Your task to perform on an android device: Do I have any events today? Image 0: 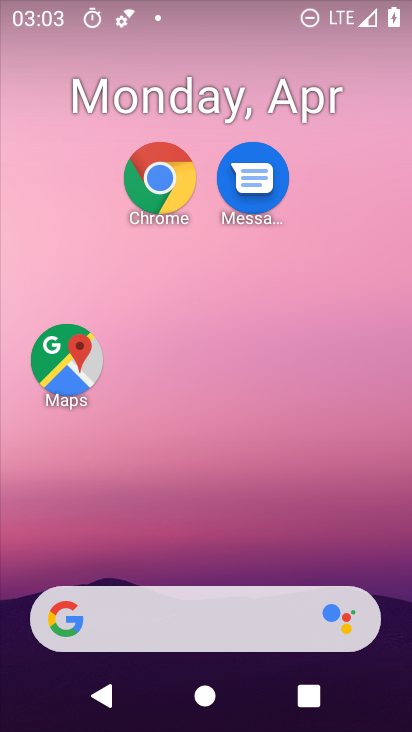
Step 0: drag from (249, 573) to (229, 27)
Your task to perform on an android device: Do I have any events today? Image 1: 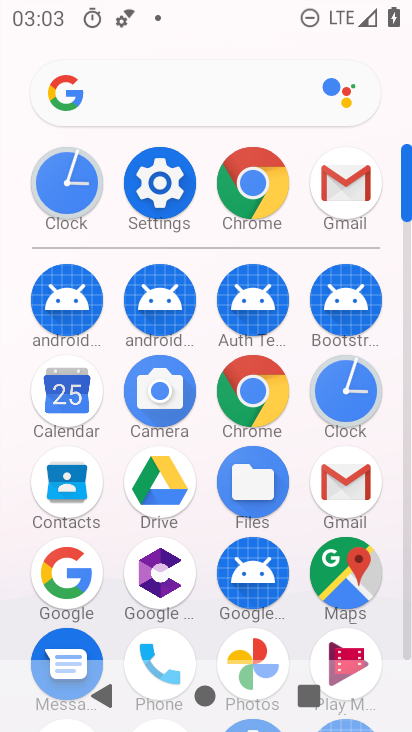
Step 1: click (70, 410)
Your task to perform on an android device: Do I have any events today? Image 2: 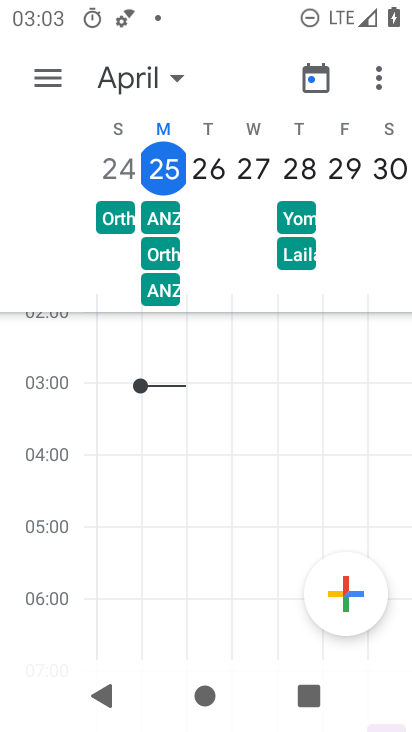
Step 2: click (172, 163)
Your task to perform on an android device: Do I have any events today? Image 3: 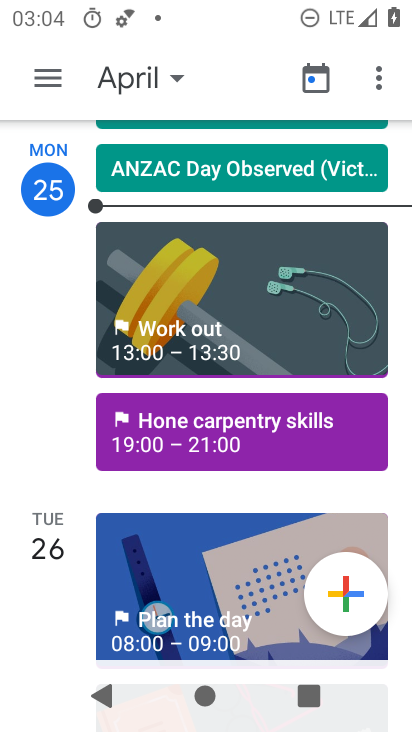
Step 3: task complete